Your task to perform on an android device: Open Youtube and go to the subscriptions tab Image 0: 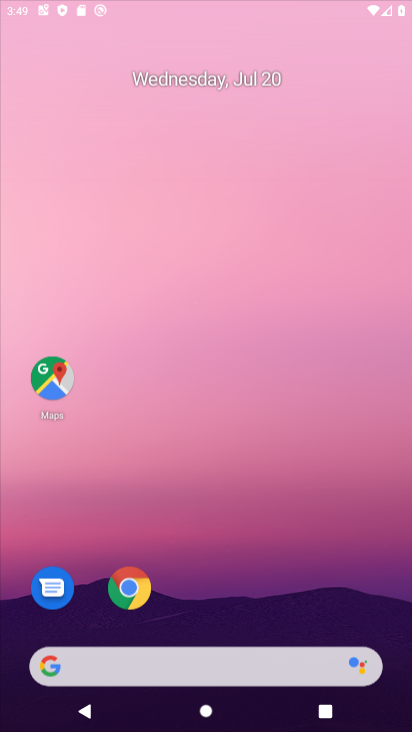
Step 0: click (239, 20)
Your task to perform on an android device: Open Youtube and go to the subscriptions tab Image 1: 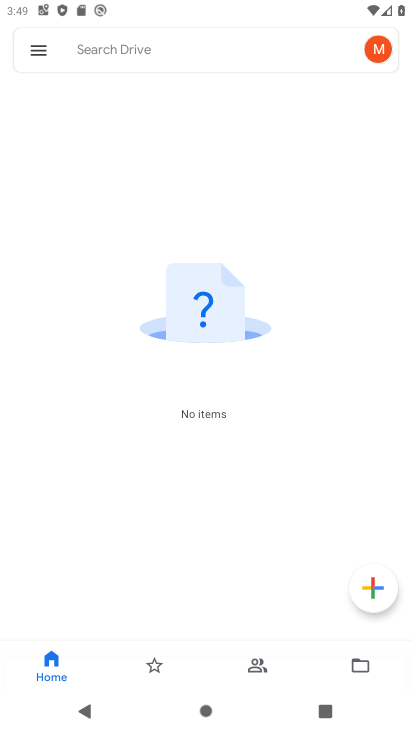
Step 1: press home button
Your task to perform on an android device: Open Youtube and go to the subscriptions tab Image 2: 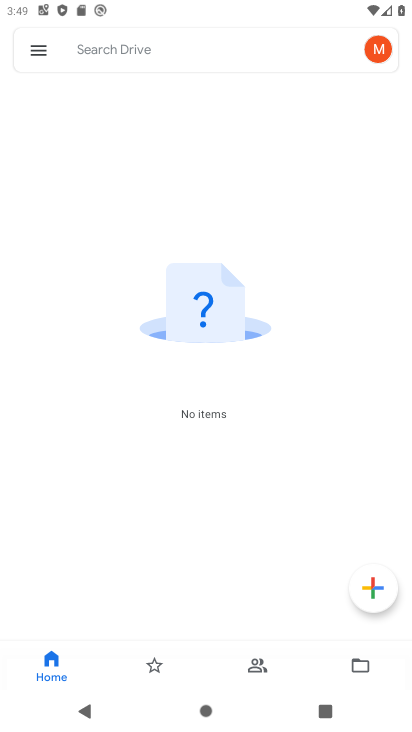
Step 2: press home button
Your task to perform on an android device: Open Youtube and go to the subscriptions tab Image 3: 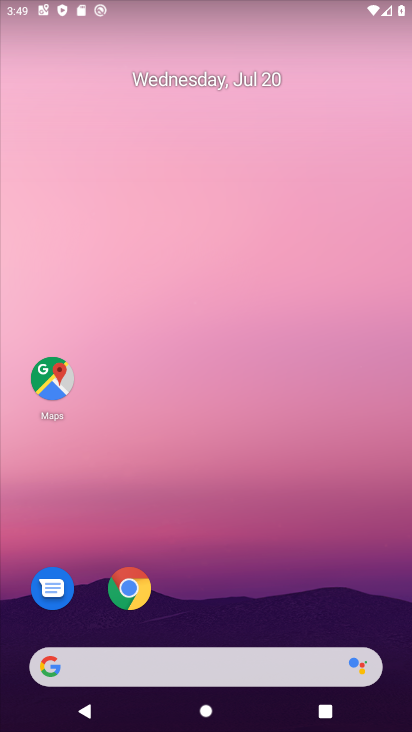
Step 3: drag from (247, 462) to (233, 67)
Your task to perform on an android device: Open Youtube and go to the subscriptions tab Image 4: 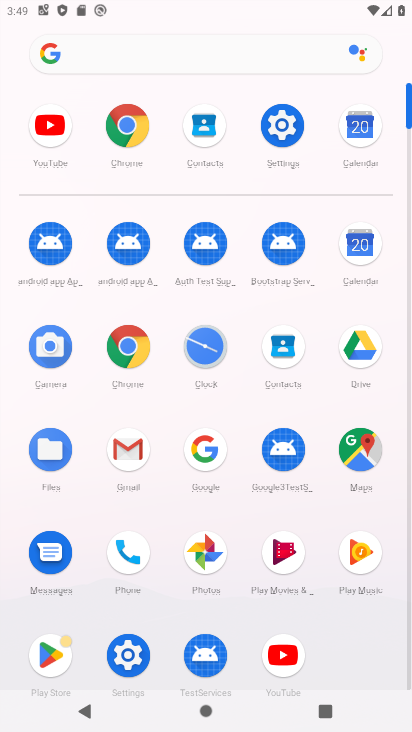
Step 4: click (43, 129)
Your task to perform on an android device: Open Youtube and go to the subscriptions tab Image 5: 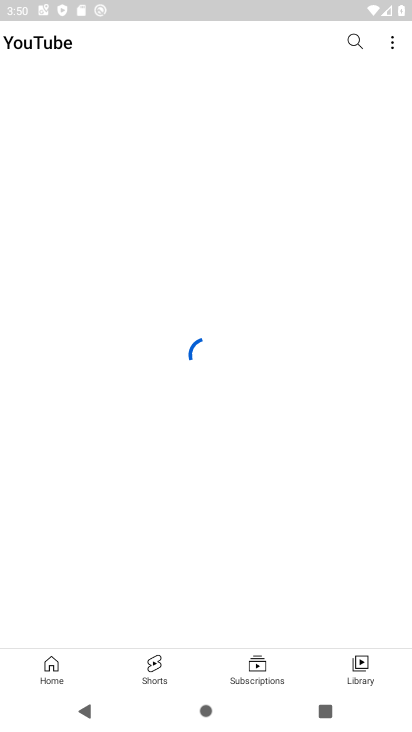
Step 5: click (278, 679)
Your task to perform on an android device: Open Youtube and go to the subscriptions tab Image 6: 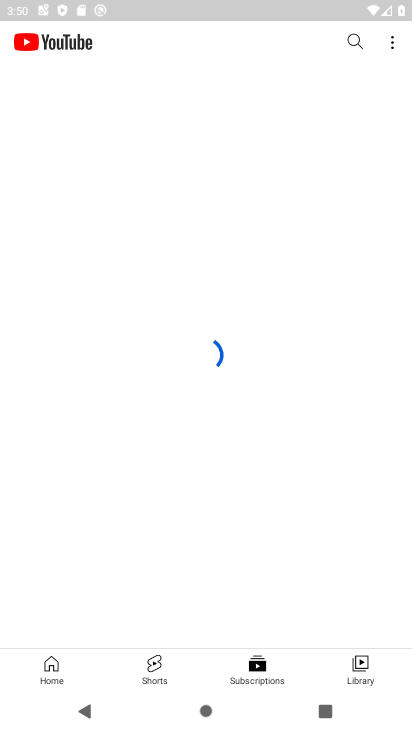
Step 6: click (270, 673)
Your task to perform on an android device: Open Youtube and go to the subscriptions tab Image 7: 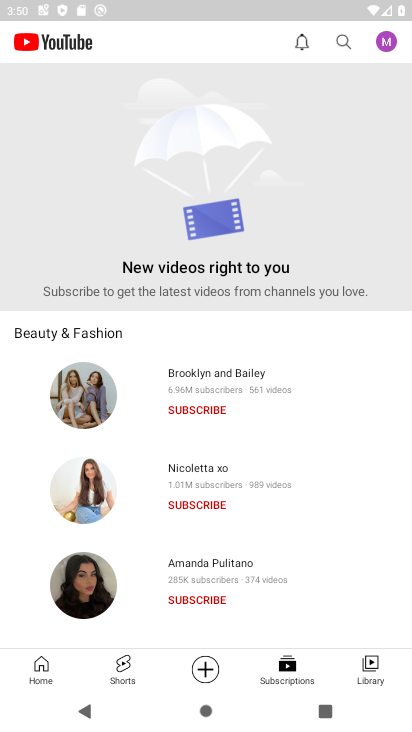
Step 7: task complete